Your task to perform on an android device: Search for Mexican restaurants on Maps Image 0: 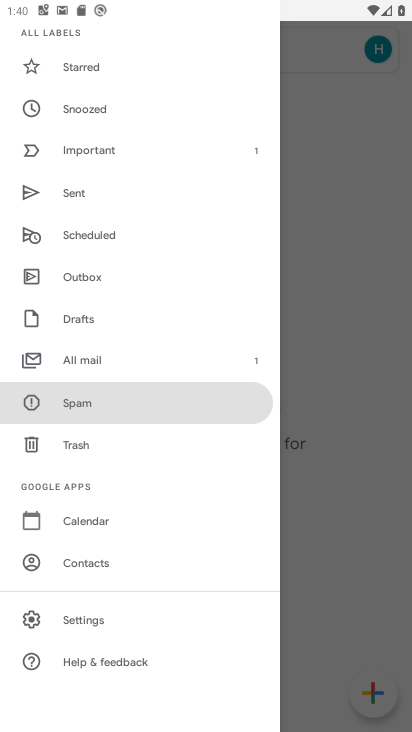
Step 0: press home button
Your task to perform on an android device: Search for Mexican restaurants on Maps Image 1: 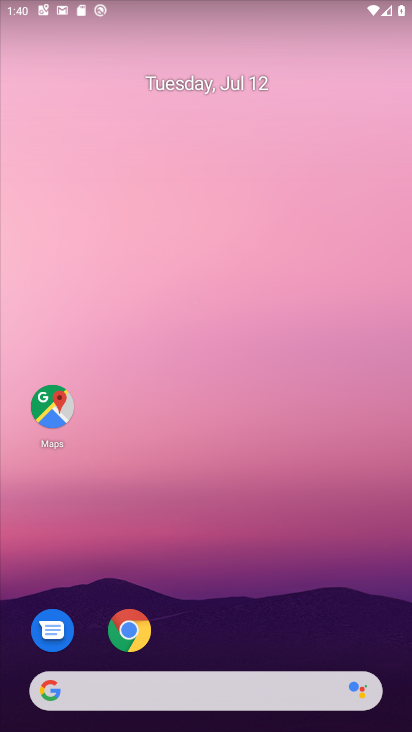
Step 1: drag from (184, 622) to (284, 68)
Your task to perform on an android device: Search for Mexican restaurants on Maps Image 2: 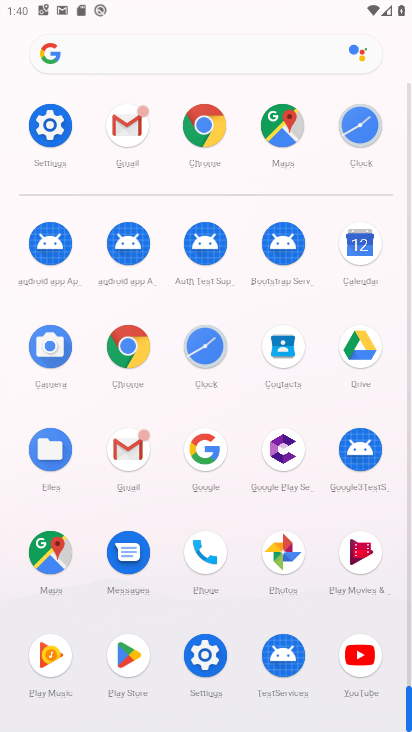
Step 2: click (46, 563)
Your task to perform on an android device: Search for Mexican restaurants on Maps Image 3: 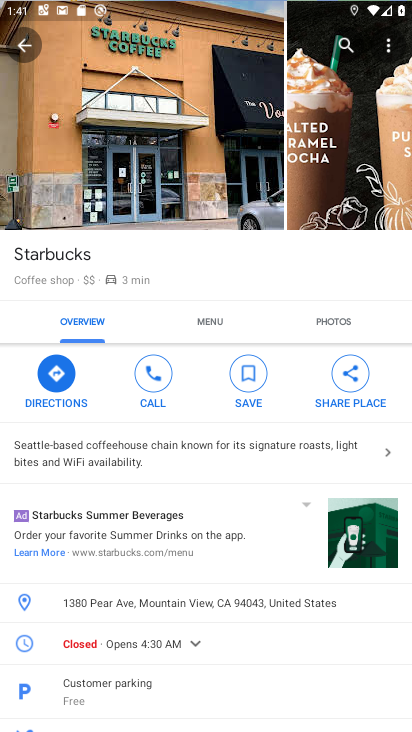
Step 3: click (33, 36)
Your task to perform on an android device: Search for Mexican restaurants on Maps Image 4: 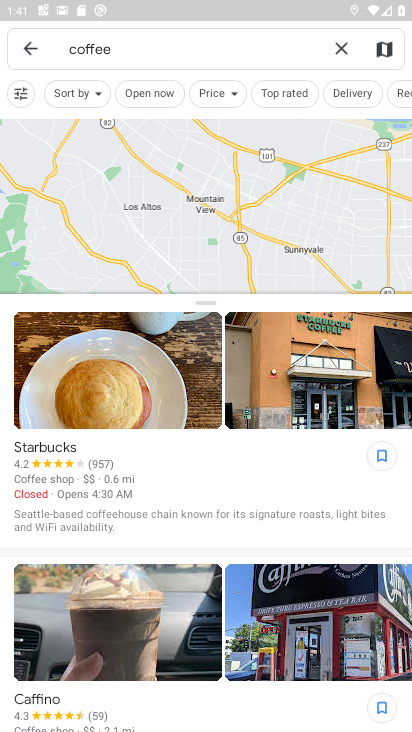
Step 4: click (186, 50)
Your task to perform on an android device: Search for Mexican restaurants on Maps Image 5: 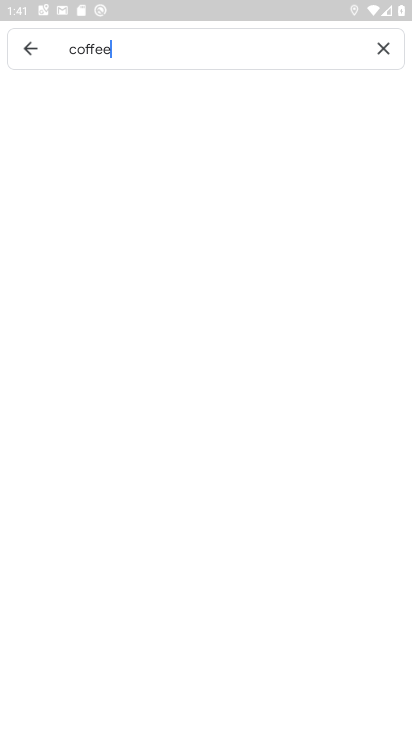
Step 5: click (340, 42)
Your task to perform on an android device: Search for Mexican restaurants on Maps Image 6: 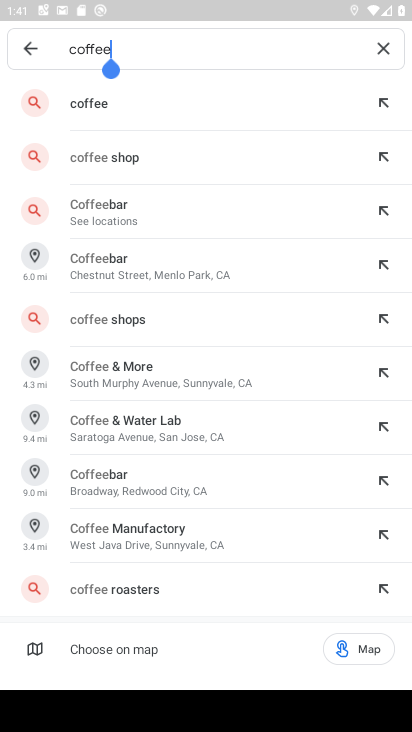
Step 6: click (379, 54)
Your task to perform on an android device: Search for Mexican restaurants on Maps Image 7: 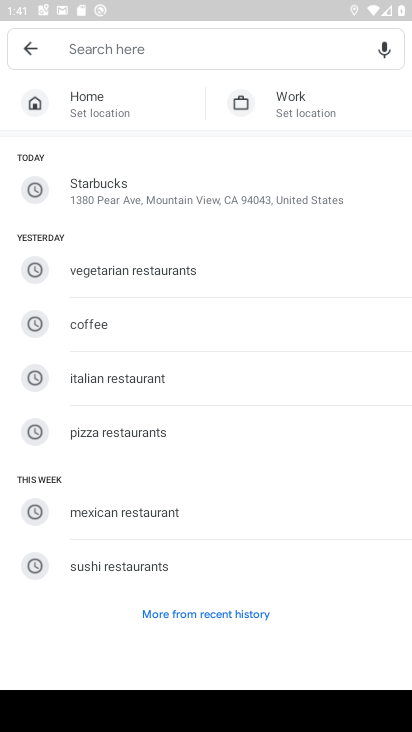
Step 7: click (140, 499)
Your task to perform on an android device: Search for Mexican restaurants on Maps Image 8: 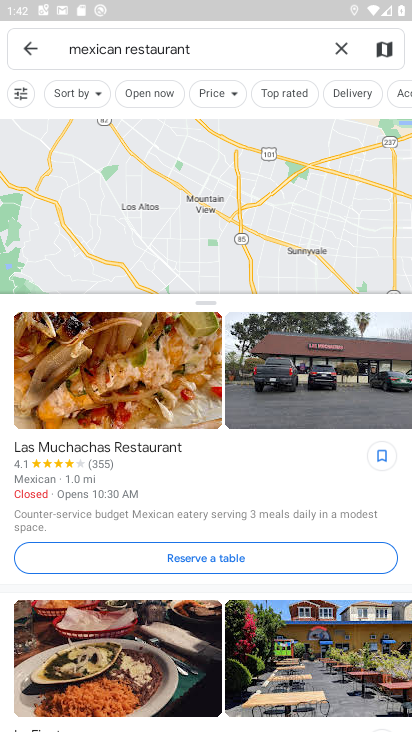
Step 8: task complete